Your task to perform on an android device: Open settings on Google Maps Image 0: 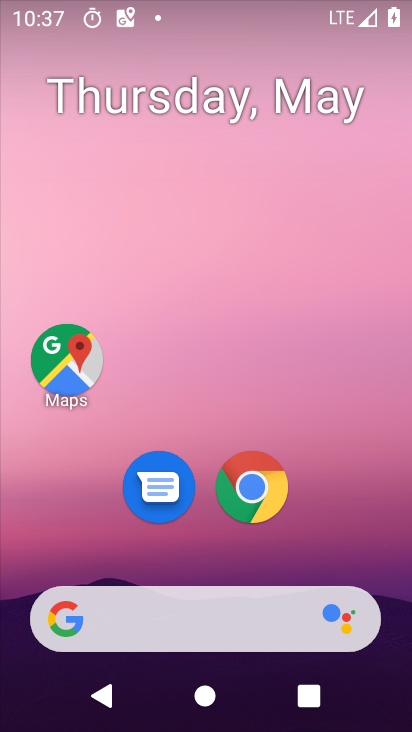
Step 0: drag from (193, 607) to (144, 70)
Your task to perform on an android device: Open settings on Google Maps Image 1: 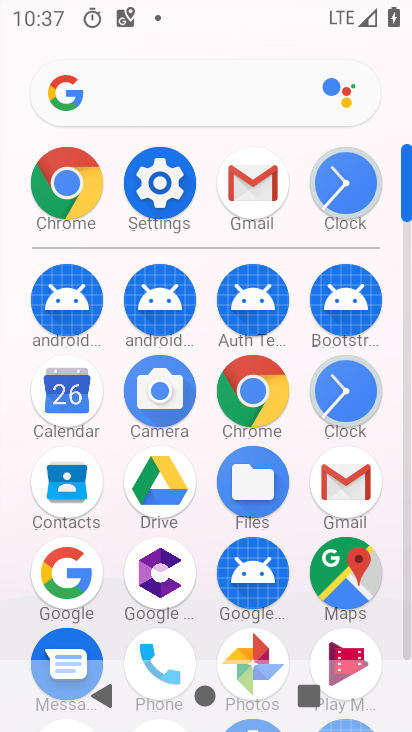
Step 1: drag from (229, 471) to (237, 172)
Your task to perform on an android device: Open settings on Google Maps Image 2: 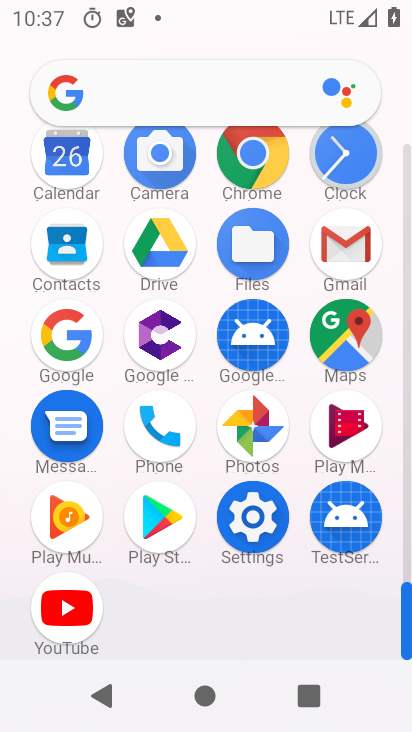
Step 2: click (370, 363)
Your task to perform on an android device: Open settings on Google Maps Image 3: 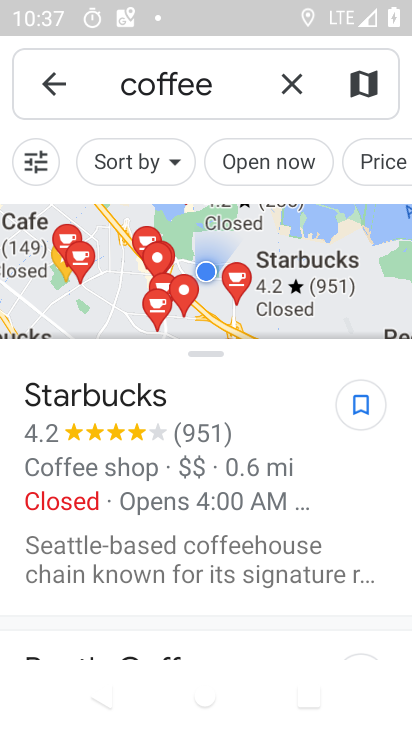
Step 3: click (55, 97)
Your task to perform on an android device: Open settings on Google Maps Image 4: 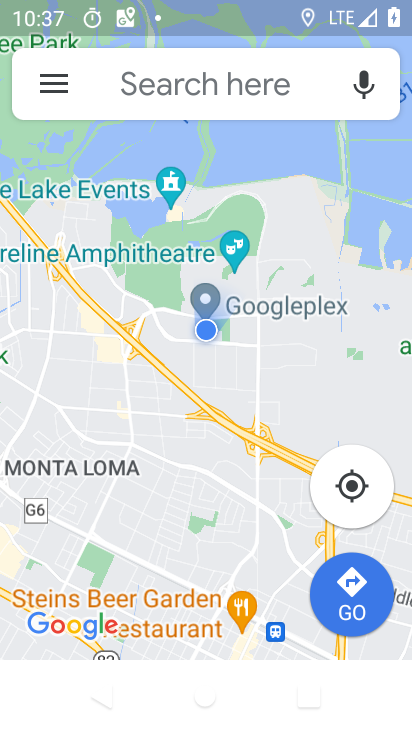
Step 4: click (59, 98)
Your task to perform on an android device: Open settings on Google Maps Image 5: 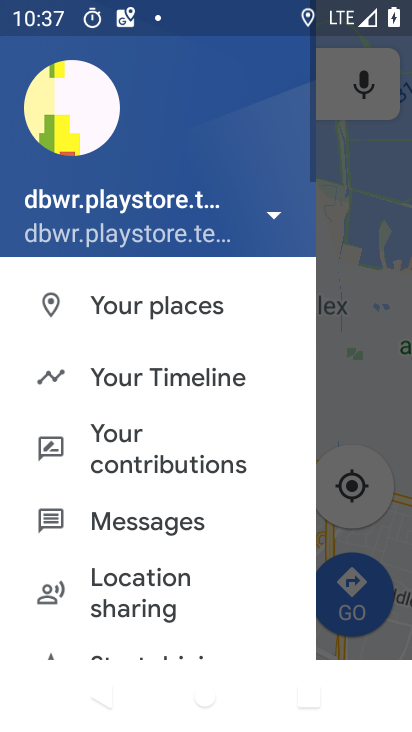
Step 5: drag from (70, 493) to (48, 113)
Your task to perform on an android device: Open settings on Google Maps Image 6: 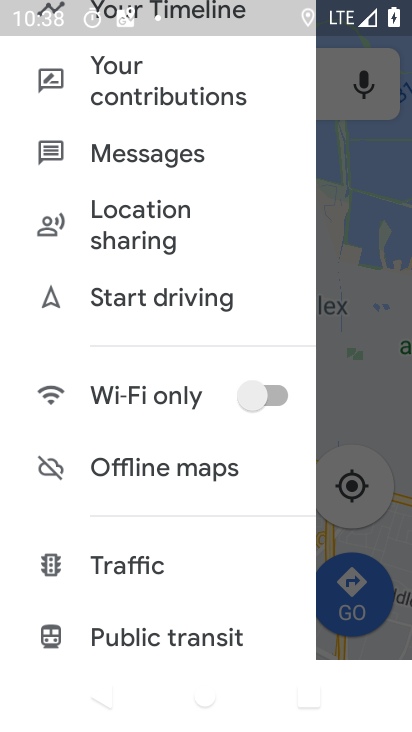
Step 6: drag from (147, 551) to (231, 76)
Your task to perform on an android device: Open settings on Google Maps Image 7: 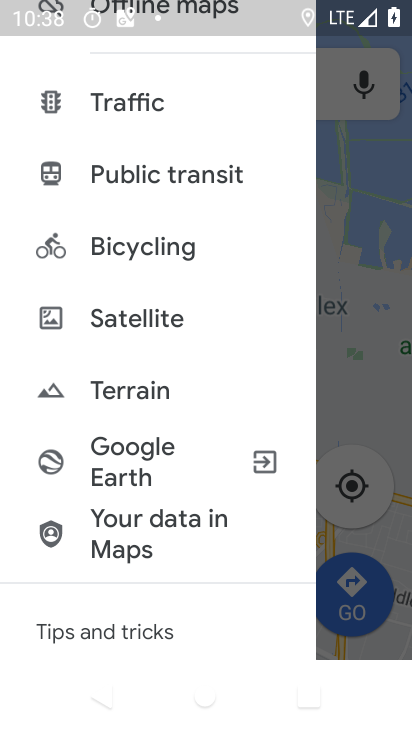
Step 7: drag from (134, 506) to (177, 165)
Your task to perform on an android device: Open settings on Google Maps Image 8: 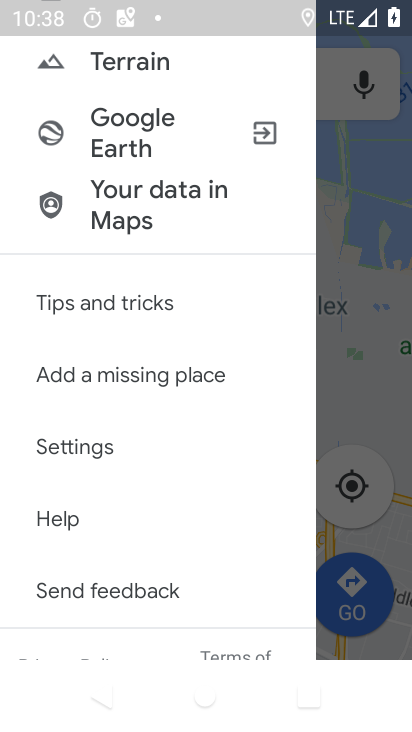
Step 8: click (76, 458)
Your task to perform on an android device: Open settings on Google Maps Image 9: 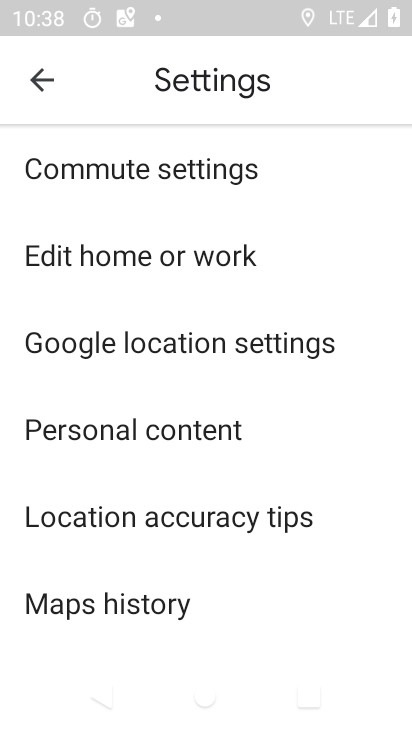
Step 9: task complete